Your task to perform on an android device: Open calendar and show me the first week of next month Image 0: 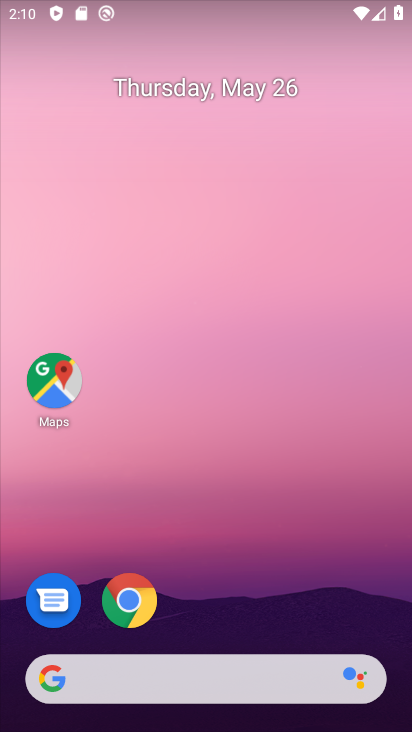
Step 0: drag from (223, 540) to (195, 106)
Your task to perform on an android device: Open calendar and show me the first week of next month Image 1: 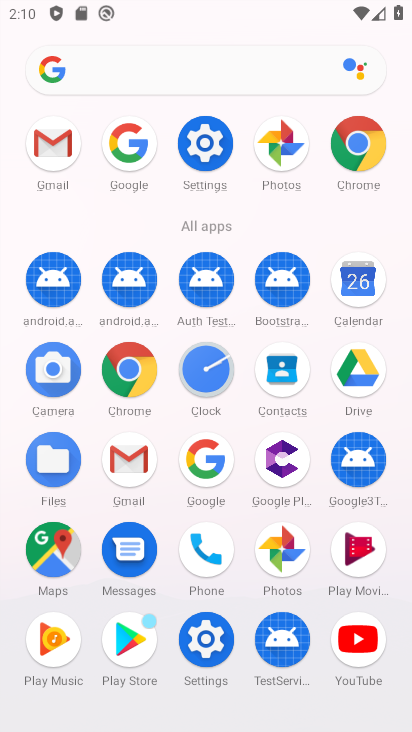
Step 1: click (355, 276)
Your task to perform on an android device: Open calendar and show me the first week of next month Image 2: 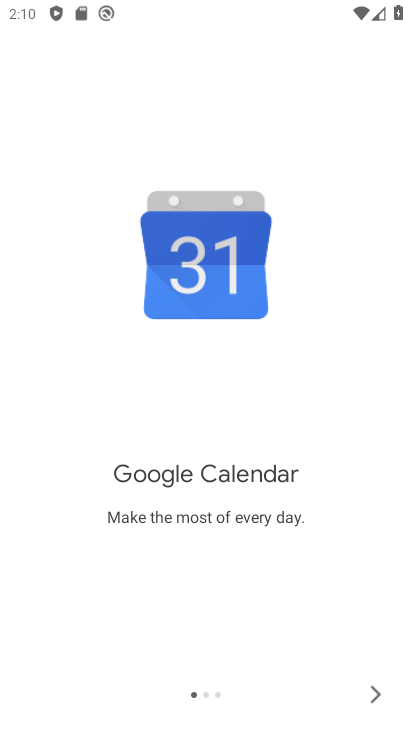
Step 2: click (371, 699)
Your task to perform on an android device: Open calendar and show me the first week of next month Image 3: 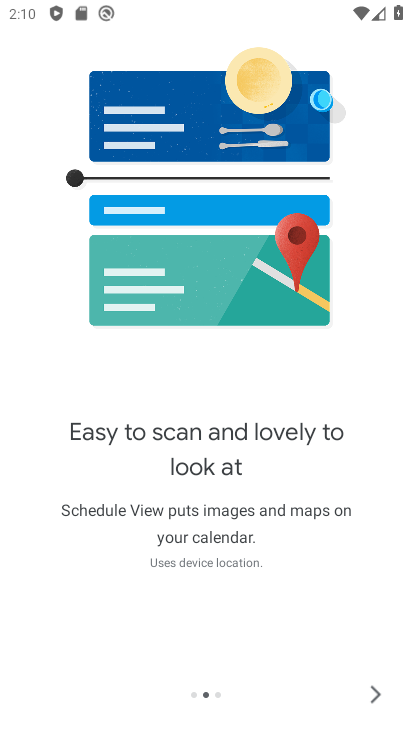
Step 3: click (384, 712)
Your task to perform on an android device: Open calendar and show me the first week of next month Image 4: 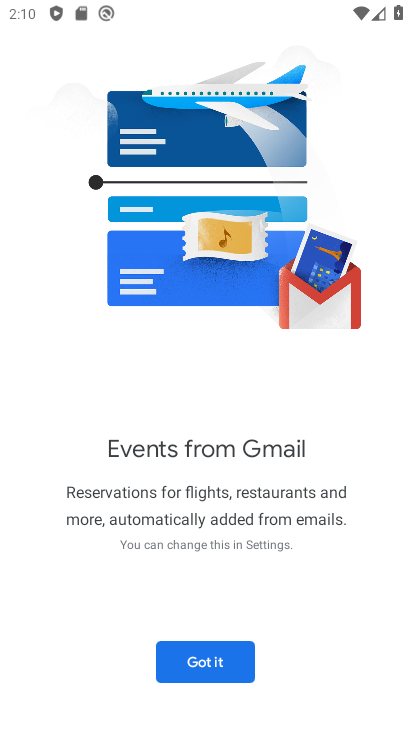
Step 4: click (218, 662)
Your task to perform on an android device: Open calendar and show me the first week of next month Image 5: 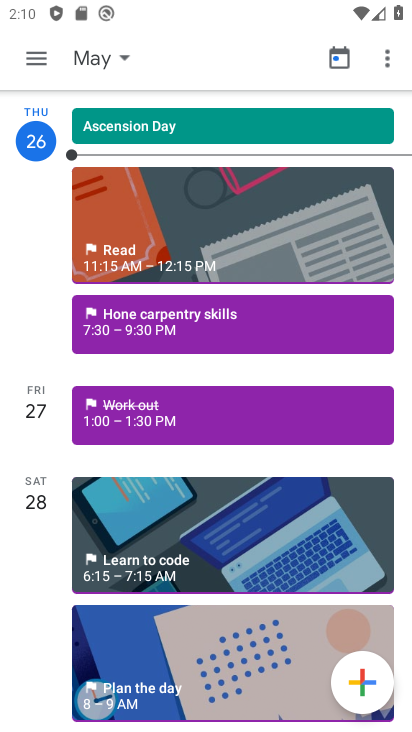
Step 5: click (101, 67)
Your task to perform on an android device: Open calendar and show me the first week of next month Image 6: 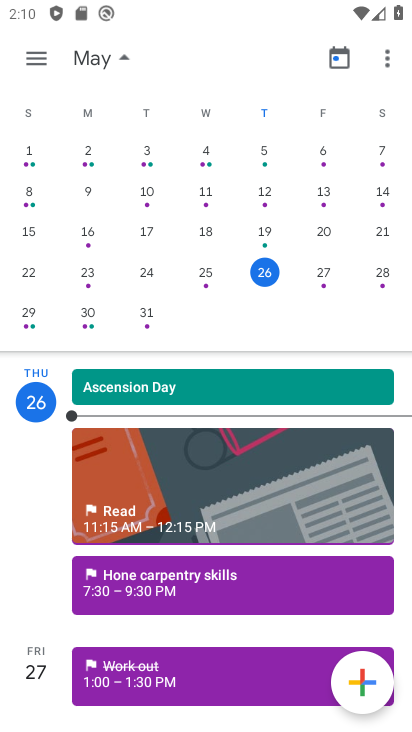
Step 6: drag from (358, 229) to (25, 137)
Your task to perform on an android device: Open calendar and show me the first week of next month Image 7: 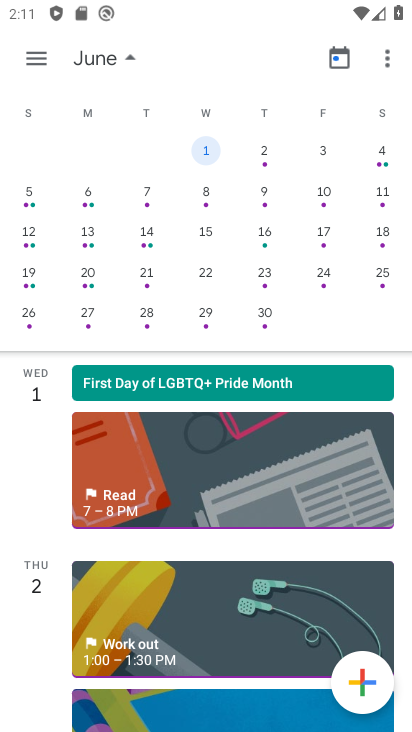
Step 7: drag from (383, 259) to (319, 259)
Your task to perform on an android device: Open calendar and show me the first week of next month Image 8: 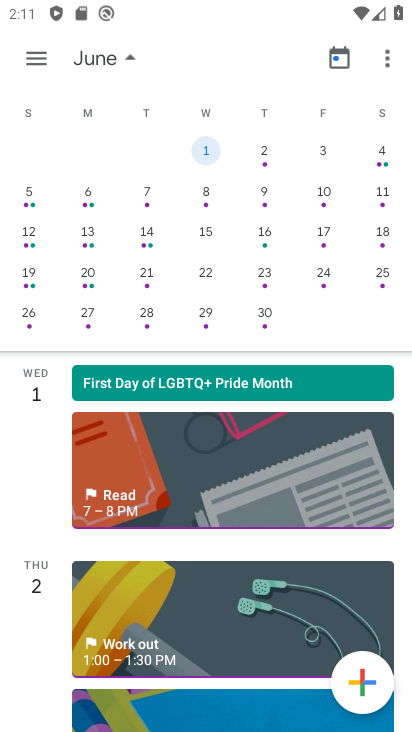
Step 8: click (32, 67)
Your task to perform on an android device: Open calendar and show me the first week of next month Image 9: 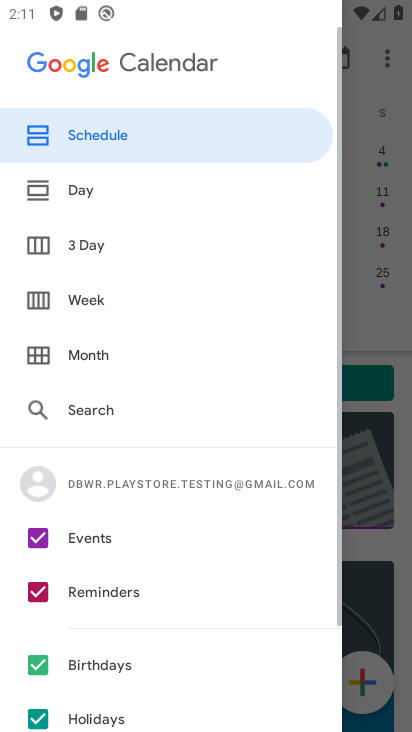
Step 9: click (120, 315)
Your task to perform on an android device: Open calendar and show me the first week of next month Image 10: 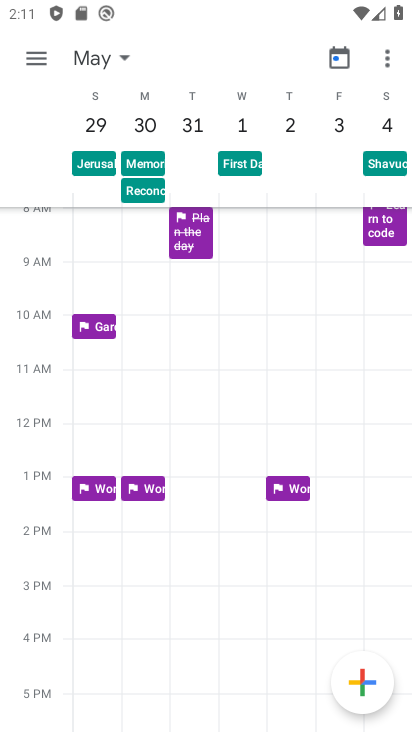
Step 10: task complete